Your task to perform on an android device: Open ESPN.com Image 0: 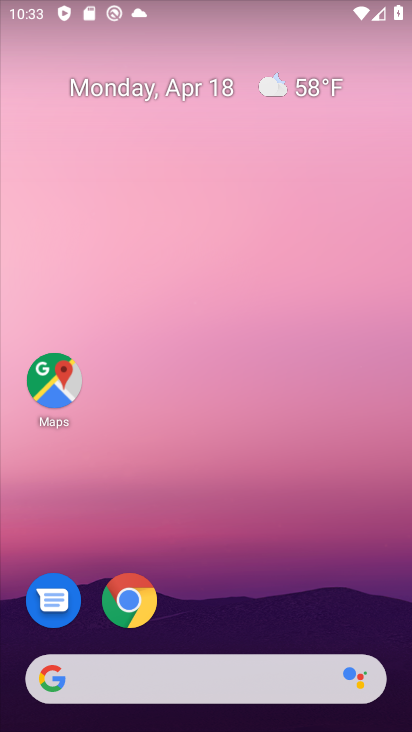
Step 0: click (130, 606)
Your task to perform on an android device: Open ESPN.com Image 1: 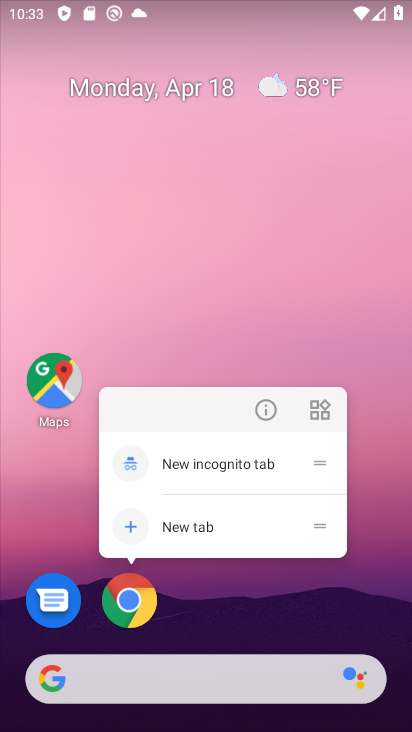
Step 1: click (134, 599)
Your task to perform on an android device: Open ESPN.com Image 2: 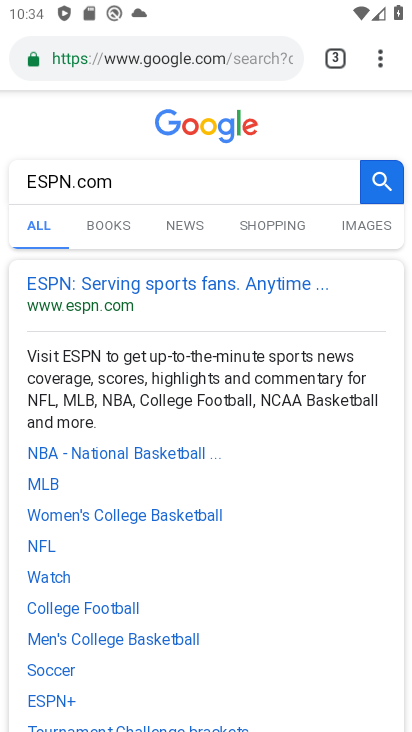
Step 2: task complete